Your task to perform on an android device: toggle data saver in the chrome app Image 0: 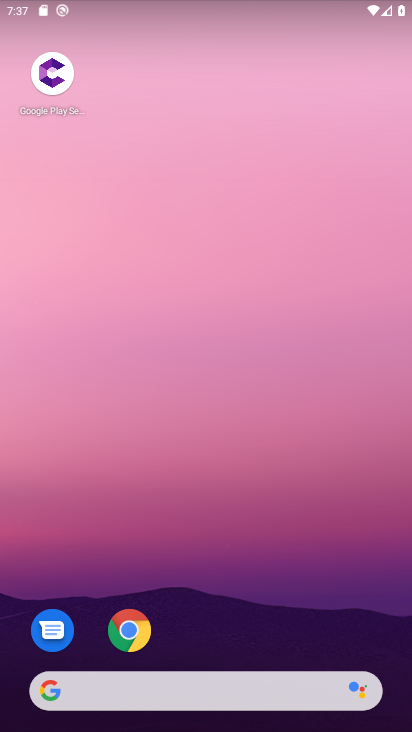
Step 0: click (134, 628)
Your task to perform on an android device: toggle data saver in the chrome app Image 1: 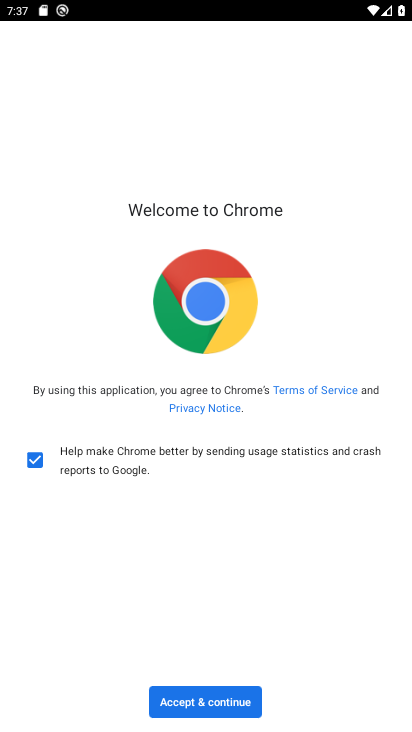
Step 1: click (210, 696)
Your task to perform on an android device: toggle data saver in the chrome app Image 2: 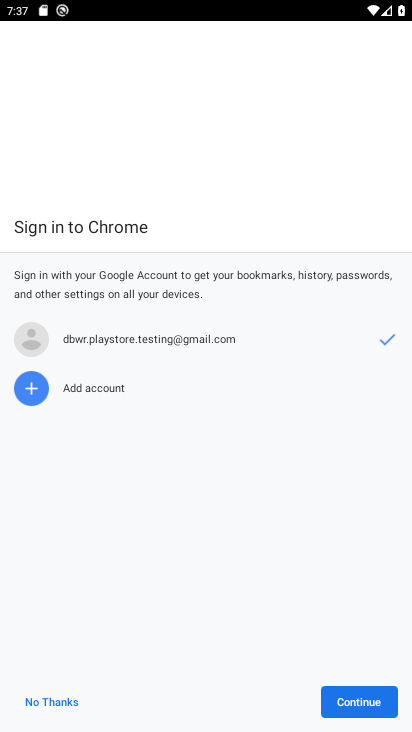
Step 2: click (371, 702)
Your task to perform on an android device: toggle data saver in the chrome app Image 3: 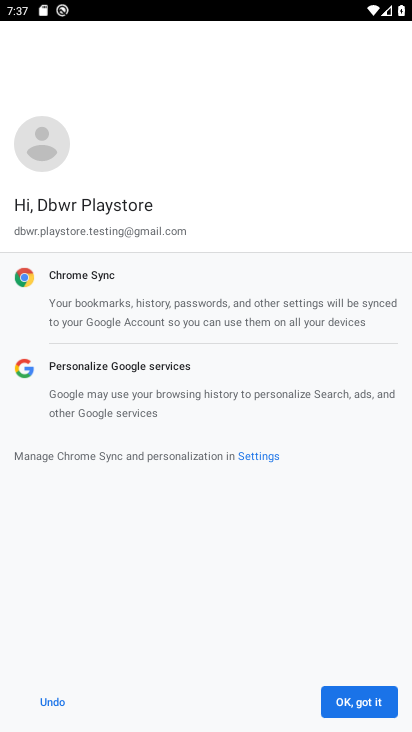
Step 3: click (371, 702)
Your task to perform on an android device: toggle data saver in the chrome app Image 4: 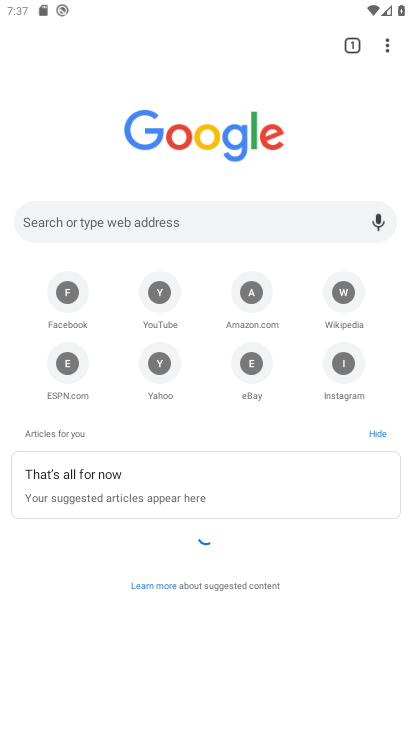
Step 4: click (385, 46)
Your task to perform on an android device: toggle data saver in the chrome app Image 5: 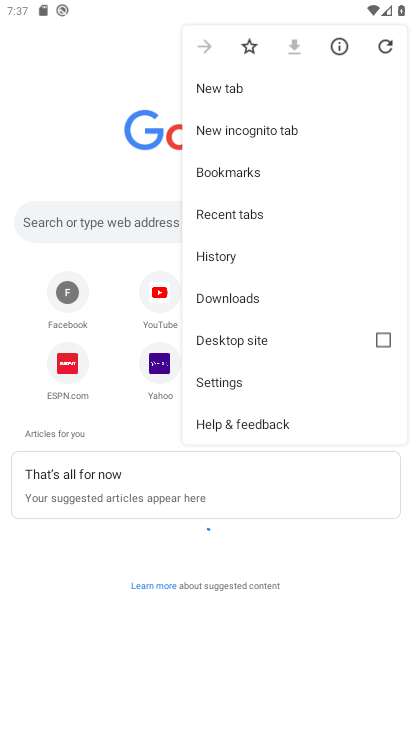
Step 5: click (253, 377)
Your task to perform on an android device: toggle data saver in the chrome app Image 6: 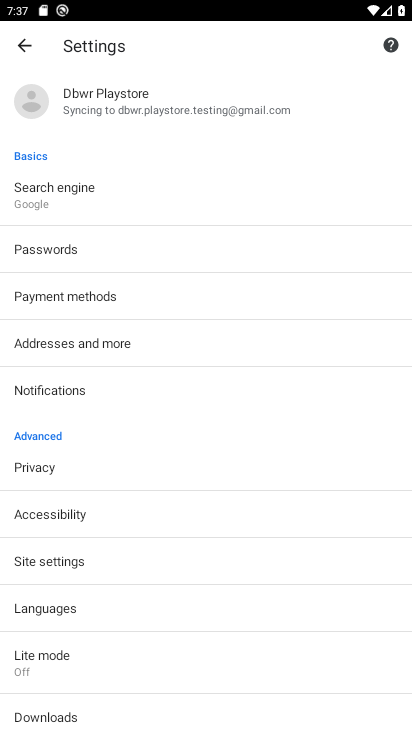
Step 6: click (39, 667)
Your task to perform on an android device: toggle data saver in the chrome app Image 7: 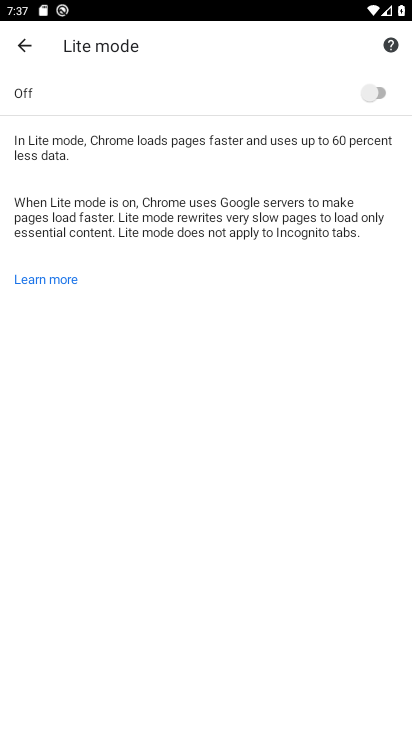
Step 7: click (375, 91)
Your task to perform on an android device: toggle data saver in the chrome app Image 8: 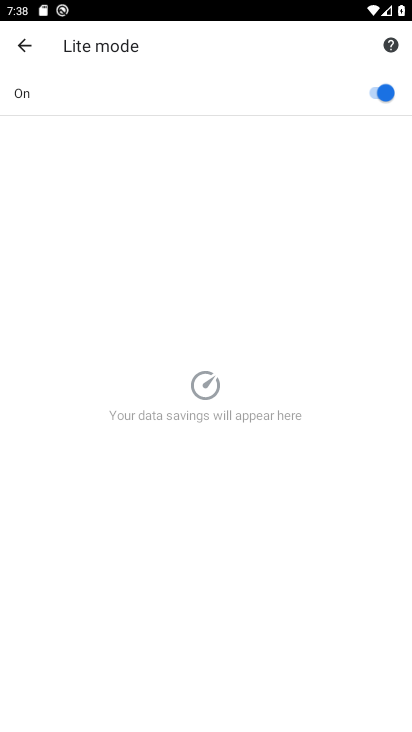
Step 8: task complete